Your task to perform on an android device: open sync settings in chrome Image 0: 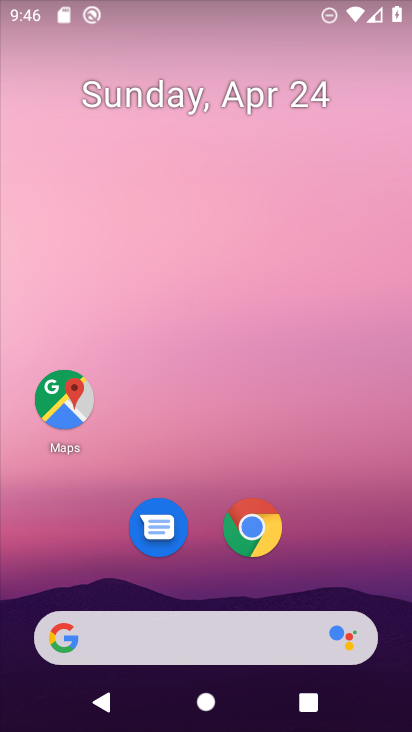
Step 0: drag from (394, 610) to (305, 73)
Your task to perform on an android device: open sync settings in chrome Image 1: 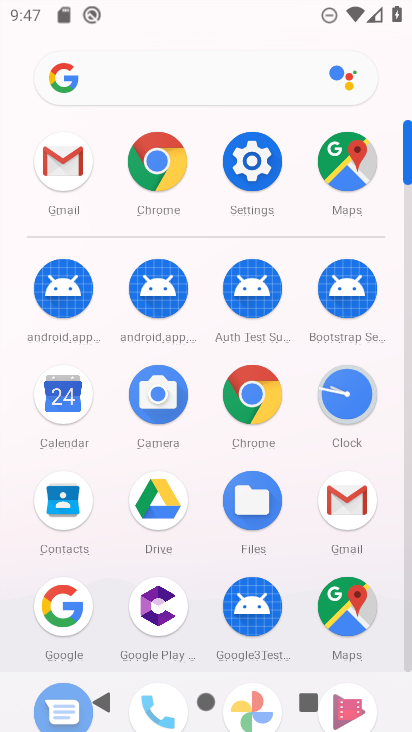
Step 1: click (233, 400)
Your task to perform on an android device: open sync settings in chrome Image 2: 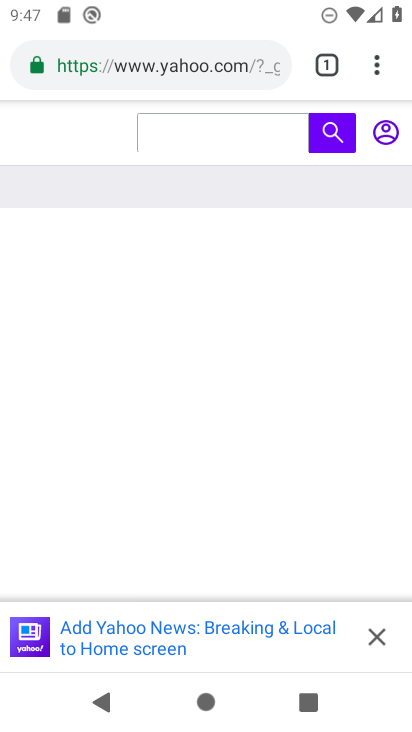
Step 2: press back button
Your task to perform on an android device: open sync settings in chrome Image 3: 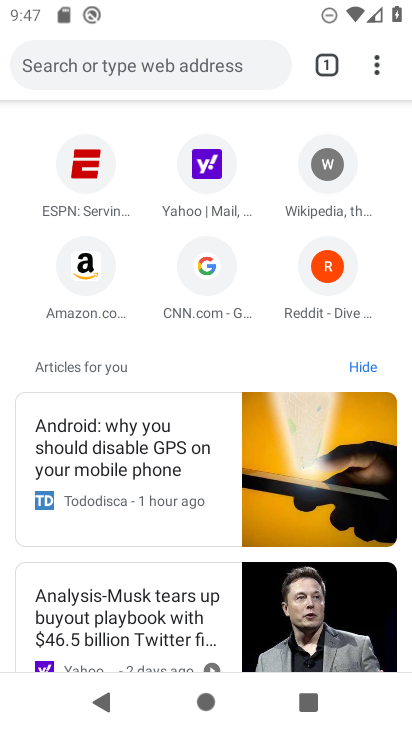
Step 3: click (376, 63)
Your task to perform on an android device: open sync settings in chrome Image 4: 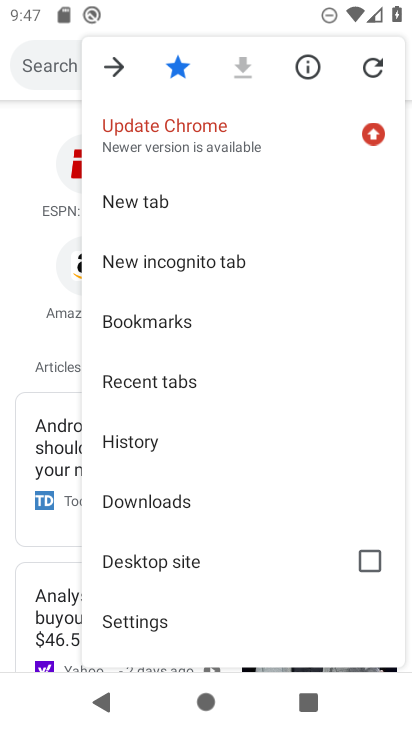
Step 4: click (207, 619)
Your task to perform on an android device: open sync settings in chrome Image 5: 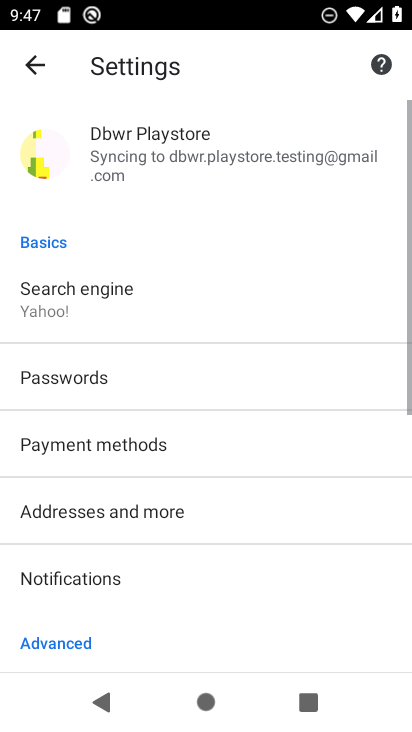
Step 5: drag from (254, 493) to (254, 127)
Your task to perform on an android device: open sync settings in chrome Image 6: 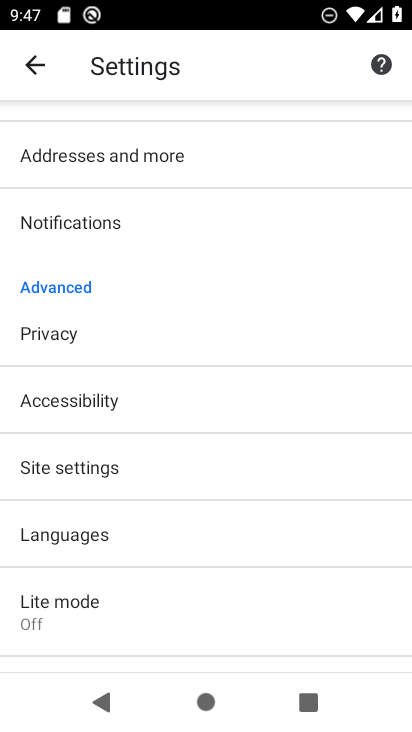
Step 6: click (112, 468)
Your task to perform on an android device: open sync settings in chrome Image 7: 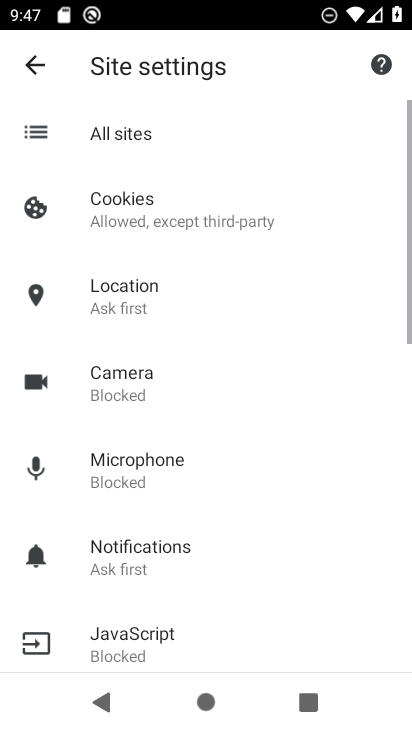
Step 7: drag from (151, 588) to (224, 258)
Your task to perform on an android device: open sync settings in chrome Image 8: 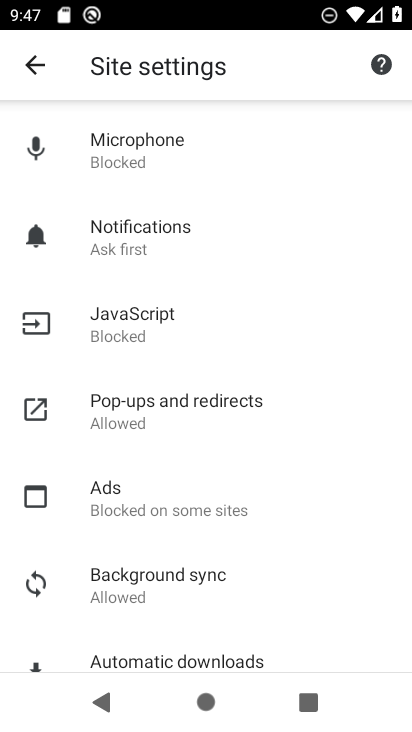
Step 8: click (174, 591)
Your task to perform on an android device: open sync settings in chrome Image 9: 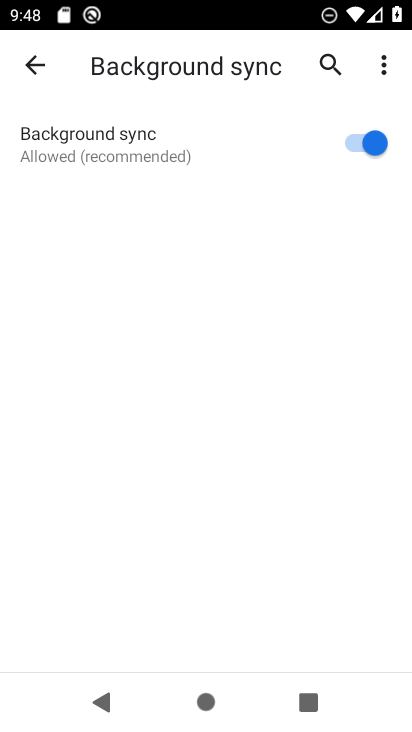
Step 9: task complete